Your task to perform on an android device: toggle improve location accuracy Image 0: 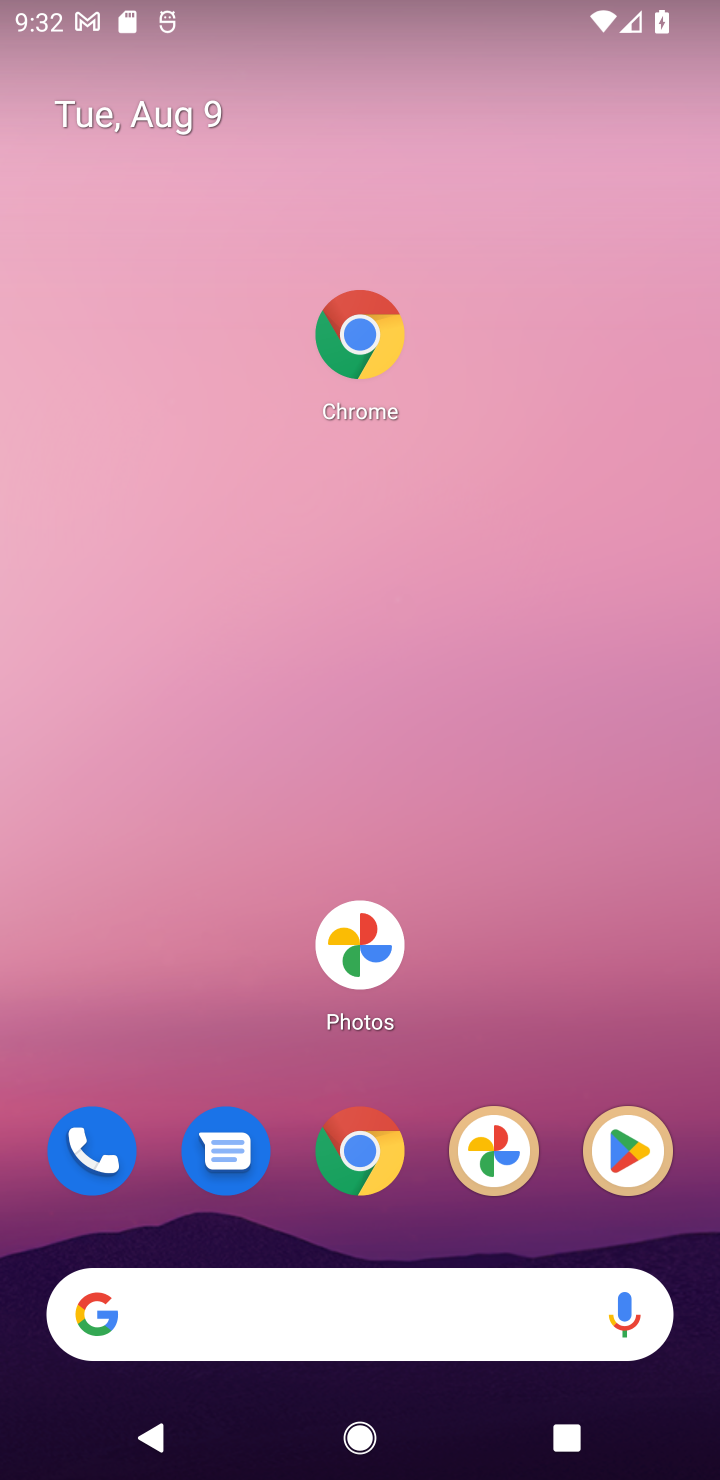
Step 0: drag from (250, 547) to (423, 386)
Your task to perform on an android device: toggle improve location accuracy Image 1: 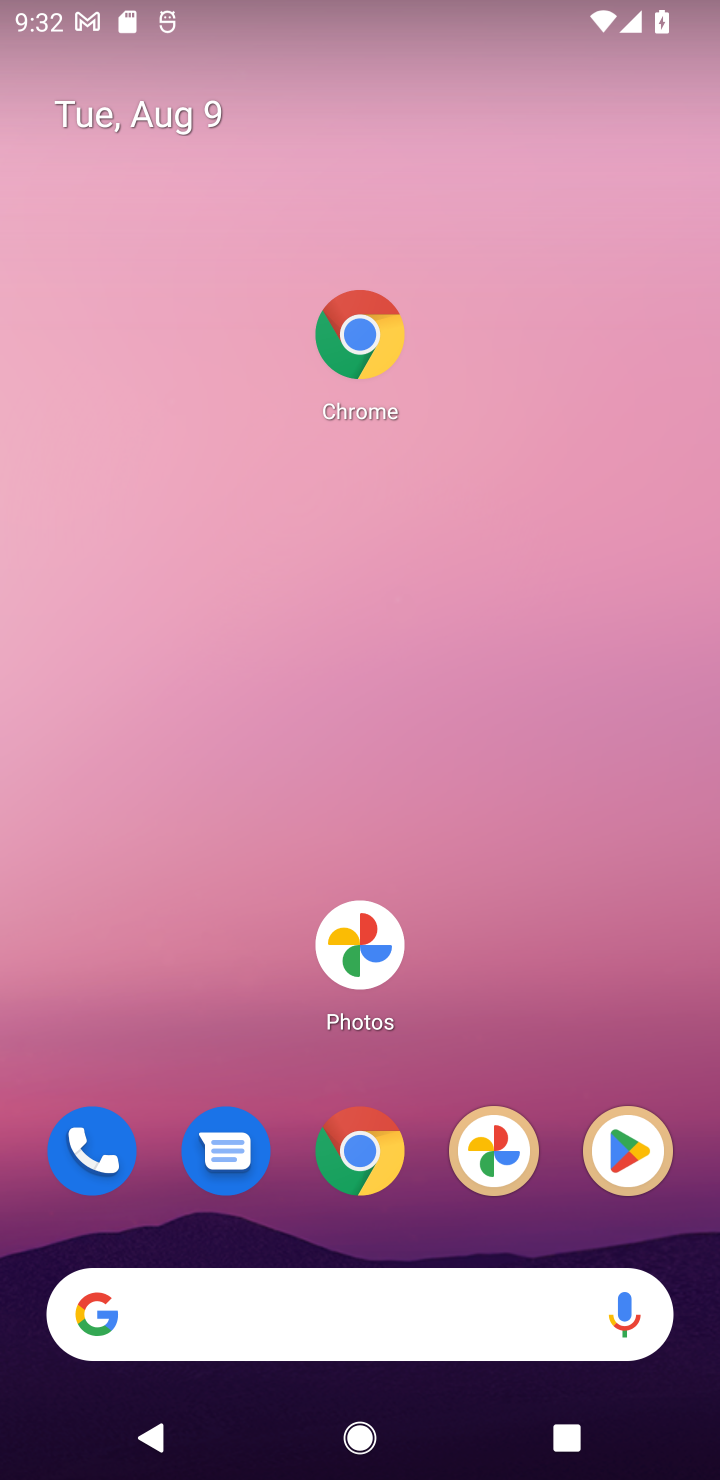
Step 1: drag from (583, 1154) to (311, 306)
Your task to perform on an android device: toggle improve location accuracy Image 2: 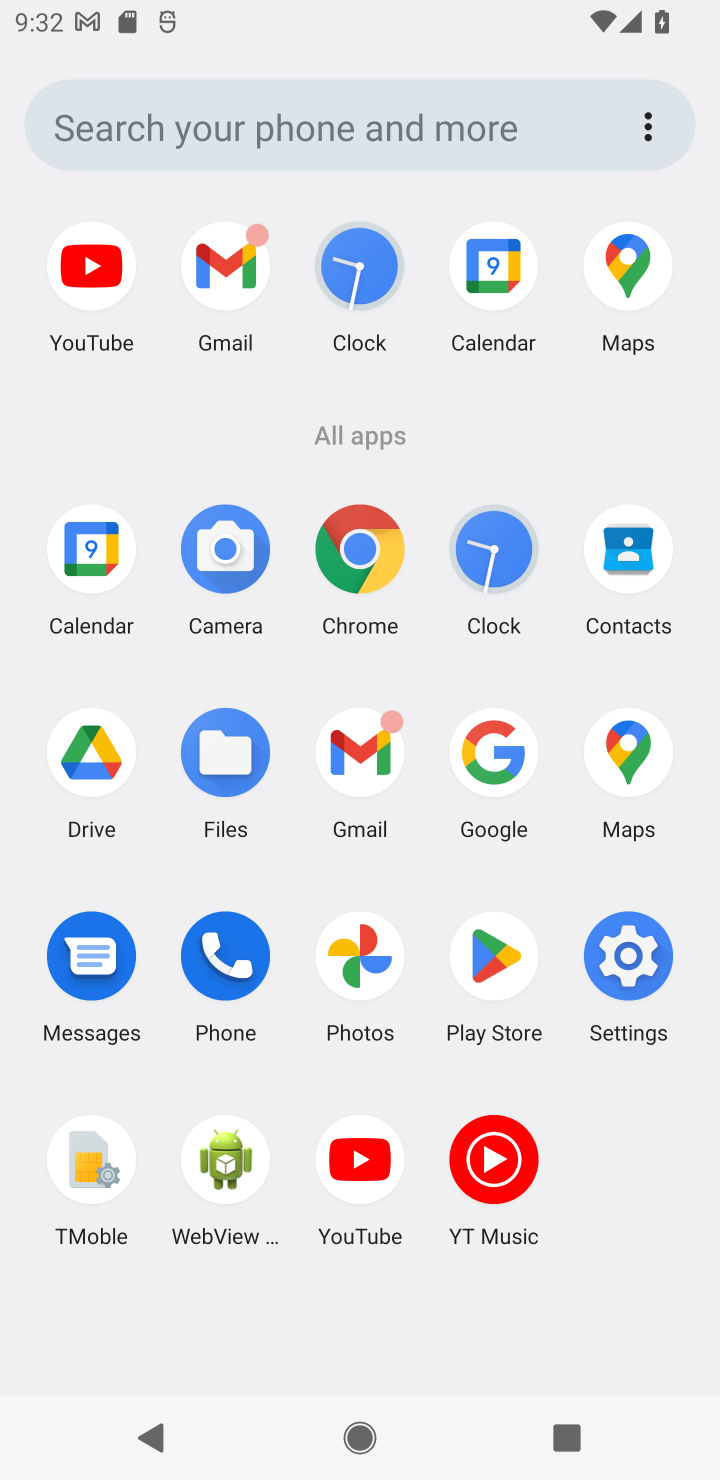
Step 2: click (628, 956)
Your task to perform on an android device: toggle improve location accuracy Image 3: 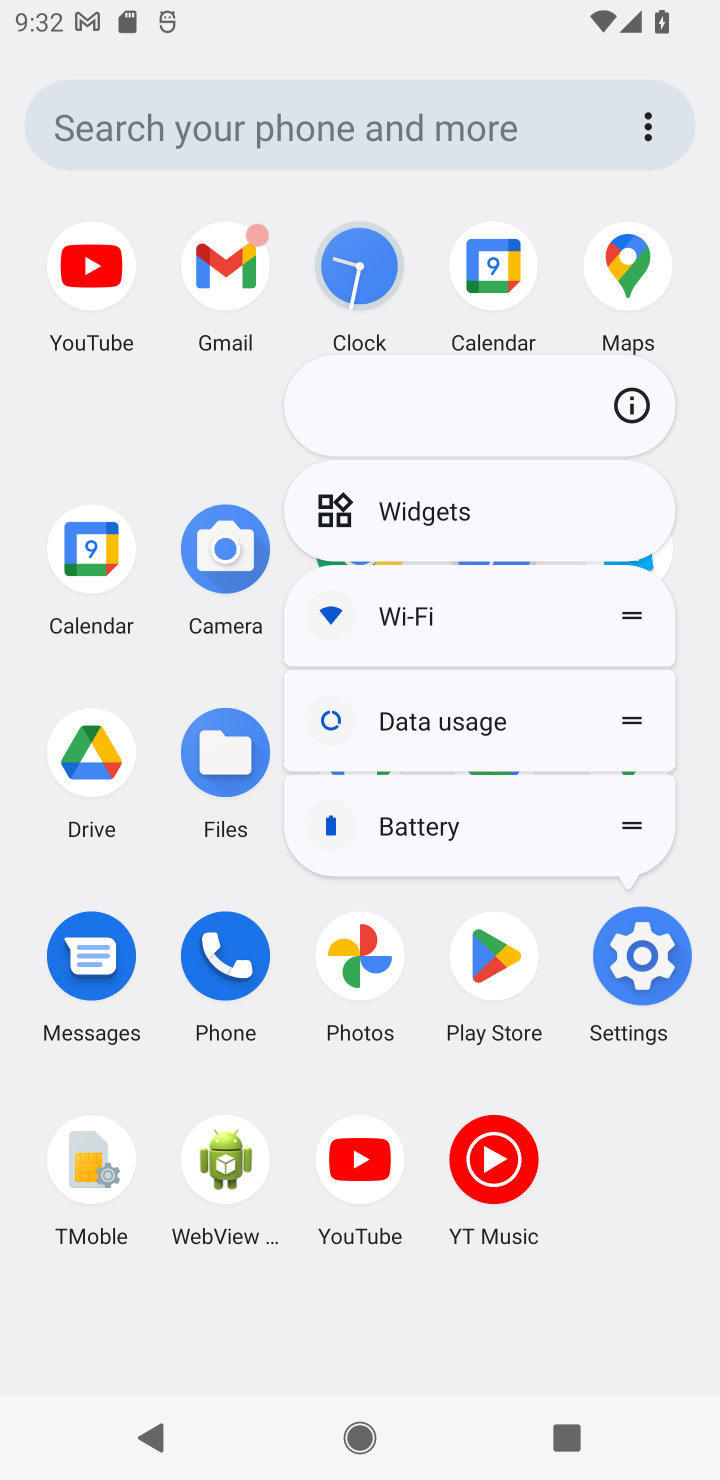
Step 3: click (643, 956)
Your task to perform on an android device: toggle improve location accuracy Image 4: 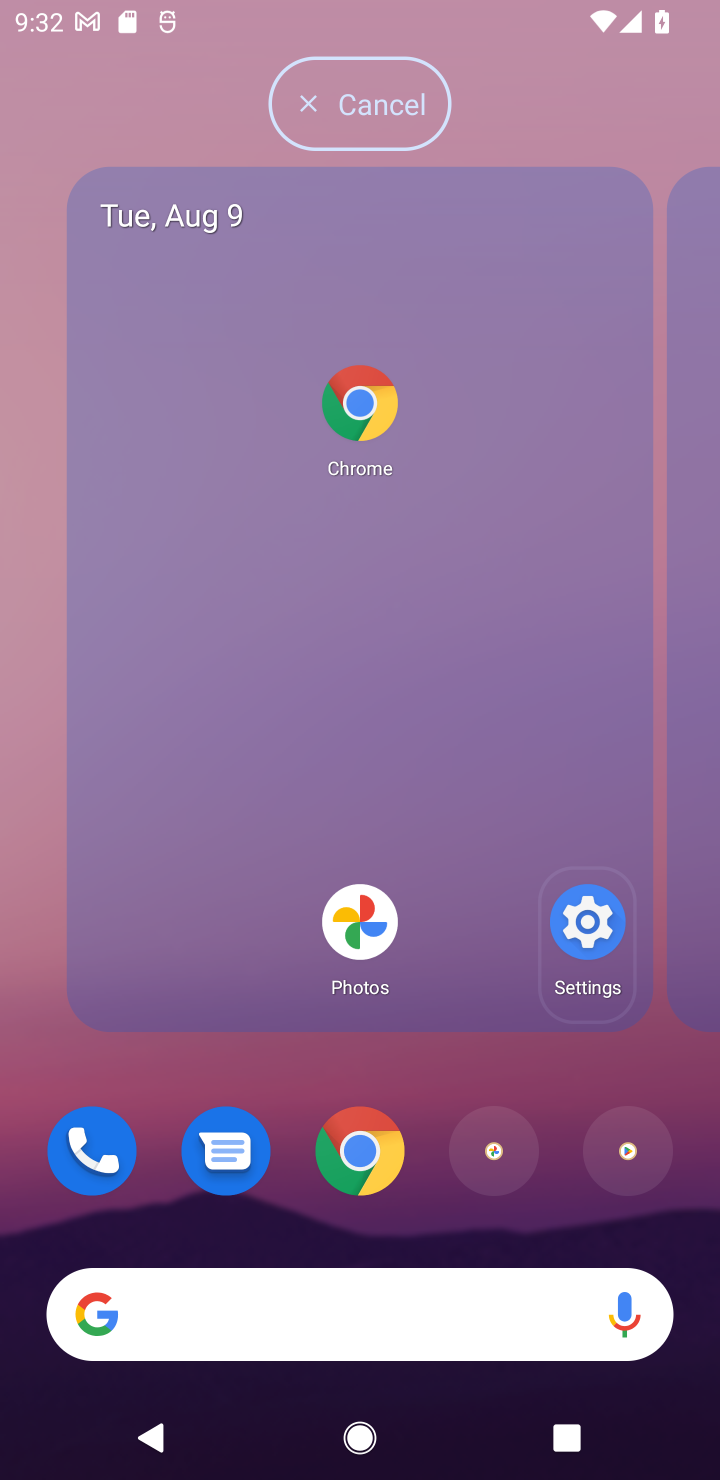
Step 4: click (591, 947)
Your task to perform on an android device: toggle improve location accuracy Image 5: 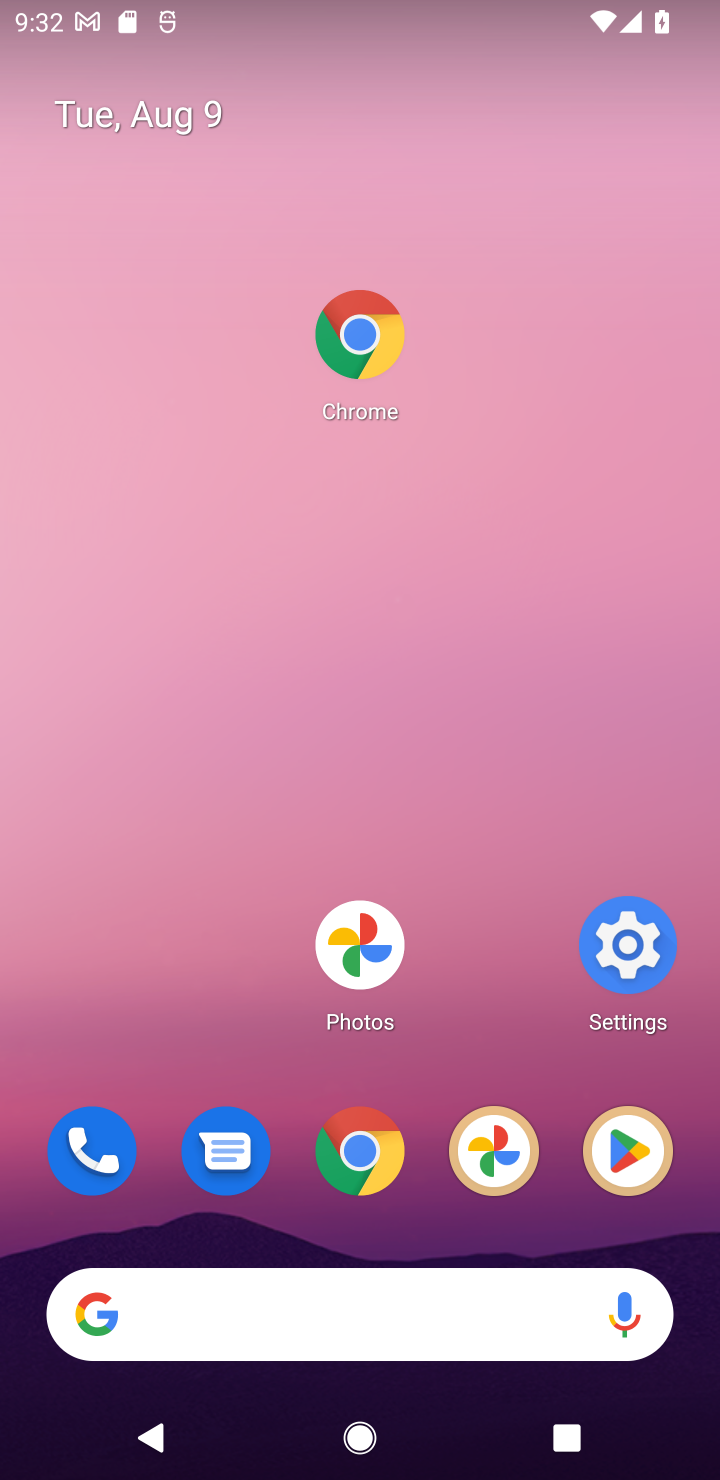
Step 5: click (591, 947)
Your task to perform on an android device: toggle improve location accuracy Image 6: 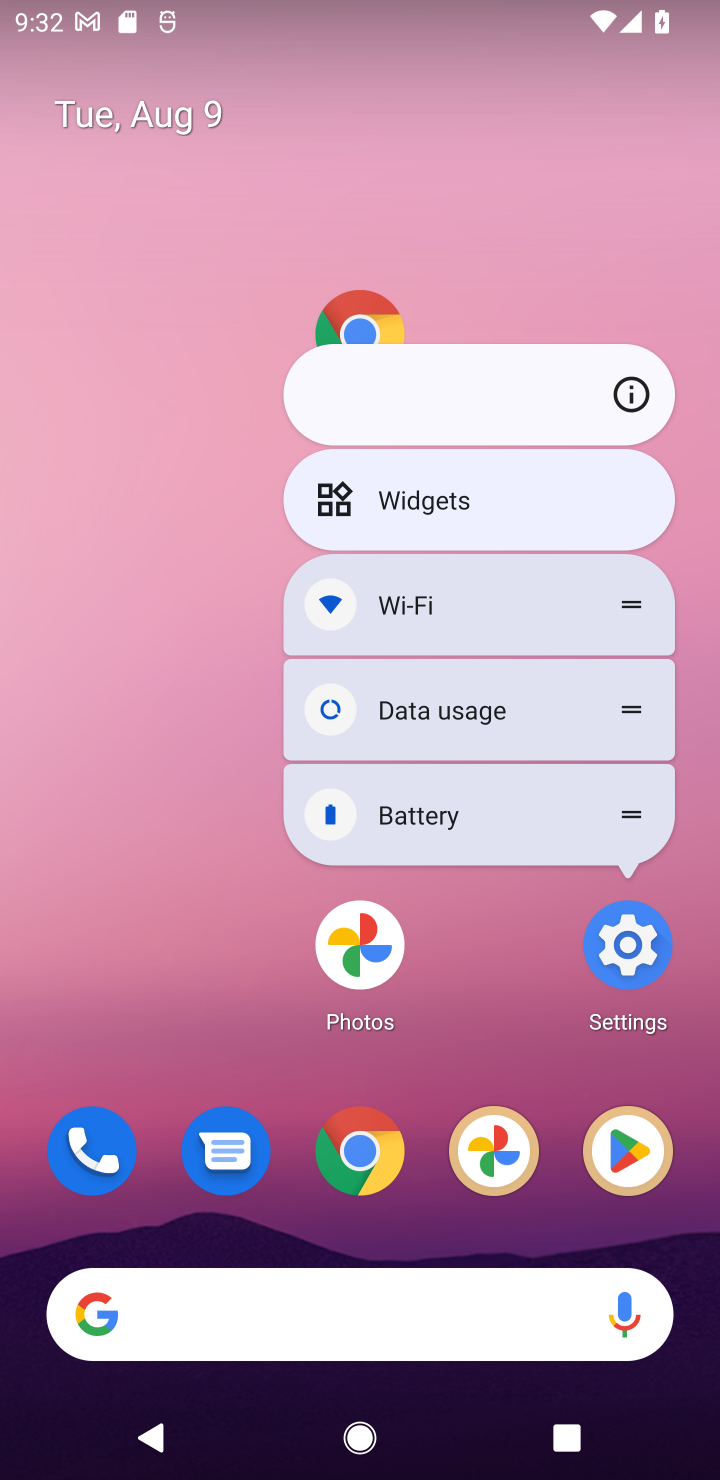
Step 6: task complete